Your task to perform on an android device: Open settings on Google Maps Image 0: 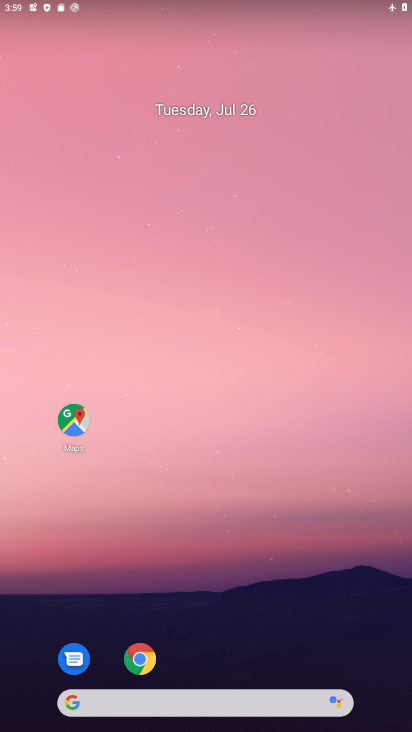
Step 0: drag from (288, 403) to (320, 67)
Your task to perform on an android device: Open settings on Google Maps Image 1: 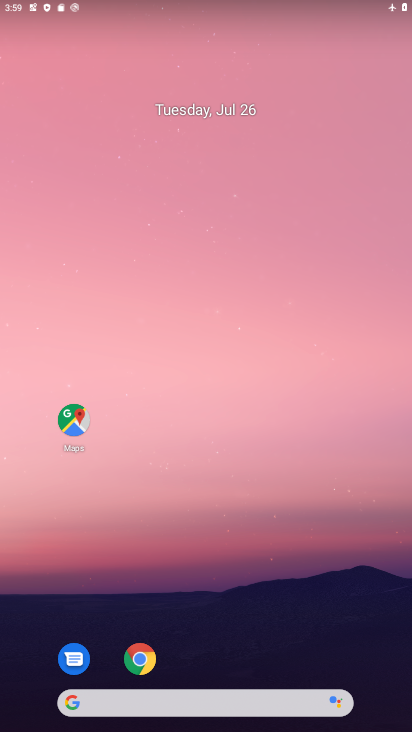
Step 1: drag from (286, 630) to (268, 12)
Your task to perform on an android device: Open settings on Google Maps Image 2: 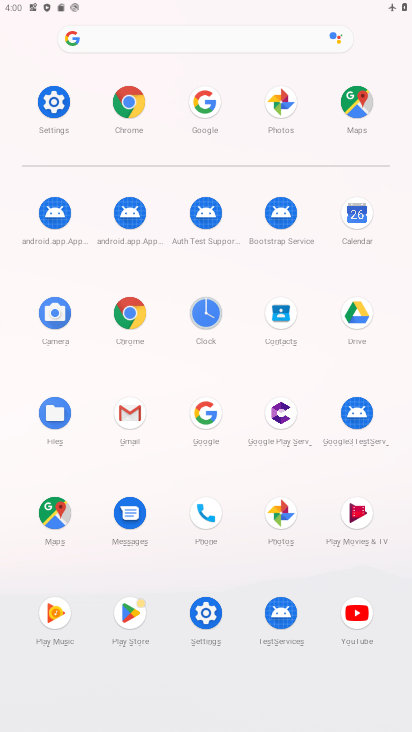
Step 2: click (55, 525)
Your task to perform on an android device: Open settings on Google Maps Image 3: 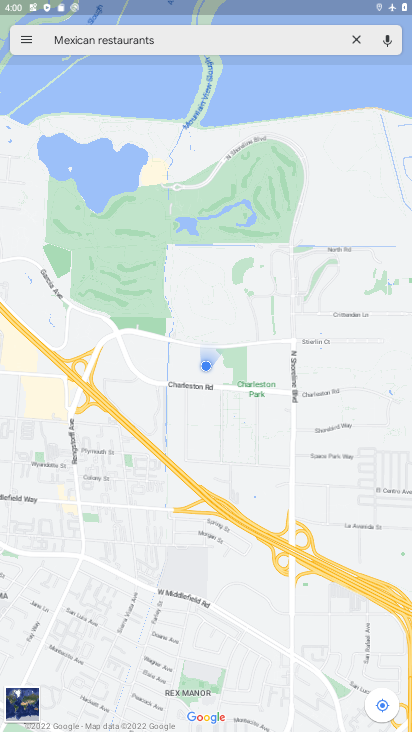
Step 3: click (27, 44)
Your task to perform on an android device: Open settings on Google Maps Image 4: 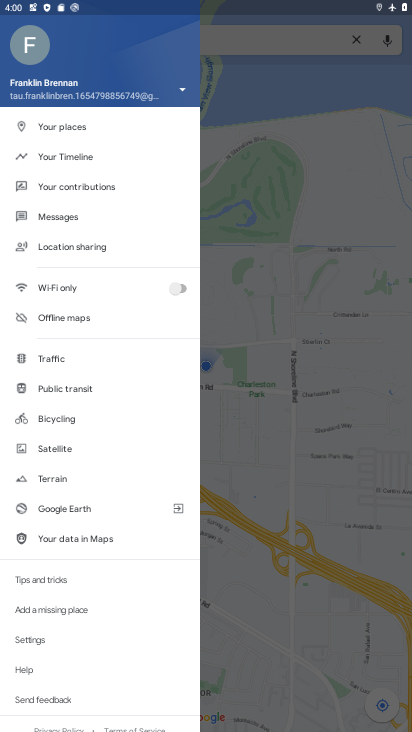
Step 4: task complete